Your task to perform on an android device: check battery use Image 0: 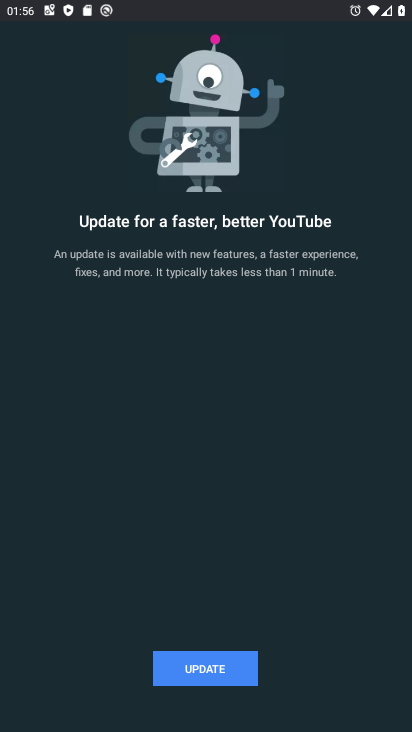
Step 0: press home button
Your task to perform on an android device: check battery use Image 1: 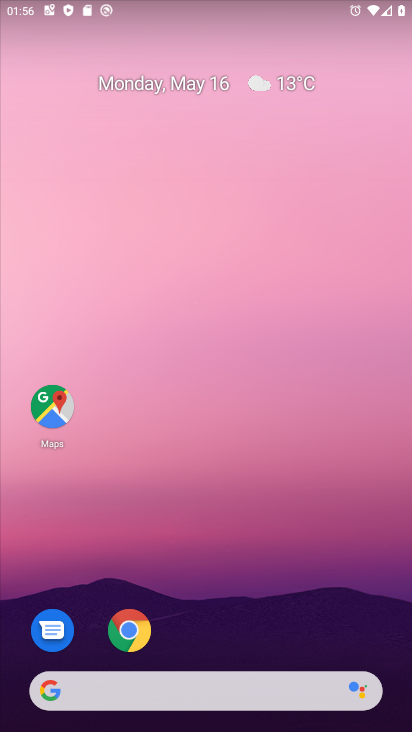
Step 1: drag from (249, 608) to (314, 140)
Your task to perform on an android device: check battery use Image 2: 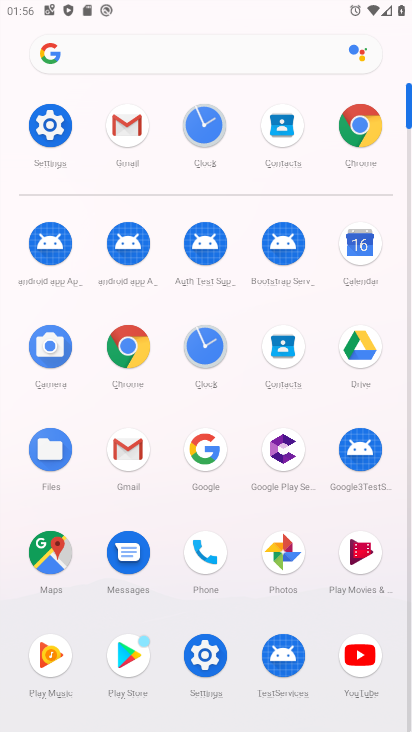
Step 2: click (44, 112)
Your task to perform on an android device: check battery use Image 3: 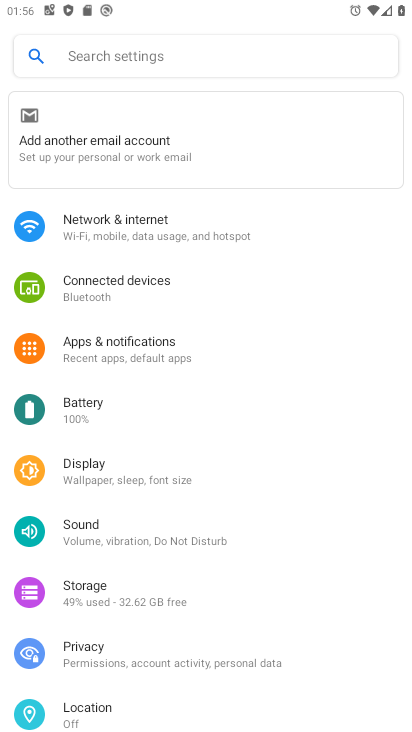
Step 3: click (111, 403)
Your task to perform on an android device: check battery use Image 4: 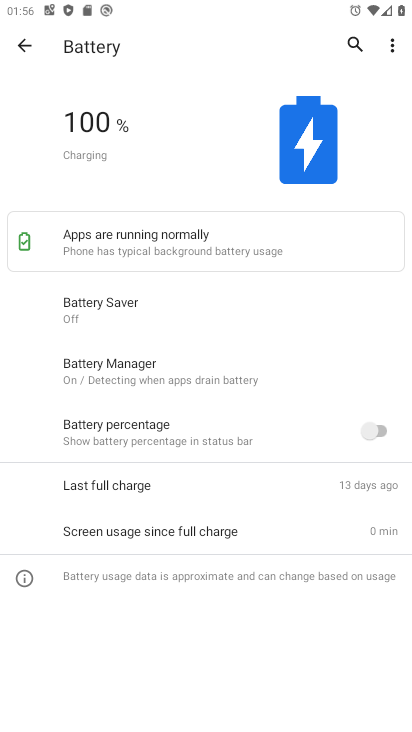
Step 4: task complete